Your task to perform on an android device: turn off javascript in the chrome app Image 0: 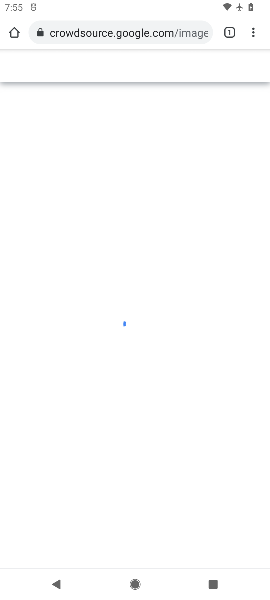
Step 0: press home button
Your task to perform on an android device: turn off javascript in the chrome app Image 1: 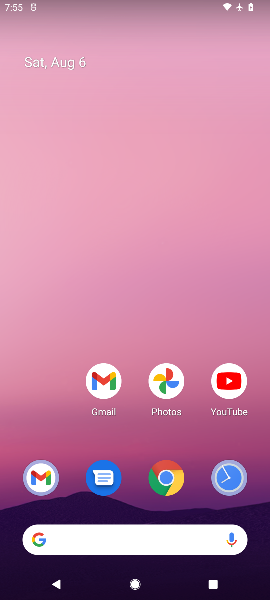
Step 1: click (169, 472)
Your task to perform on an android device: turn off javascript in the chrome app Image 2: 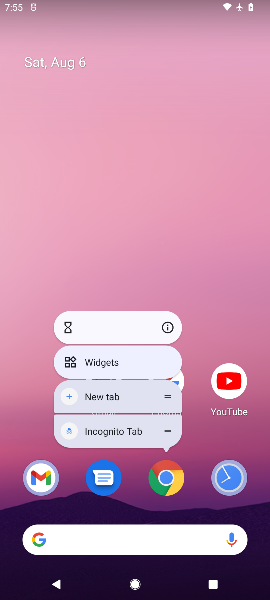
Step 2: click (164, 481)
Your task to perform on an android device: turn off javascript in the chrome app Image 3: 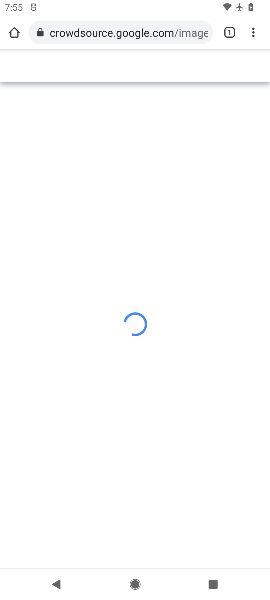
Step 3: drag from (248, 27) to (174, 429)
Your task to perform on an android device: turn off javascript in the chrome app Image 4: 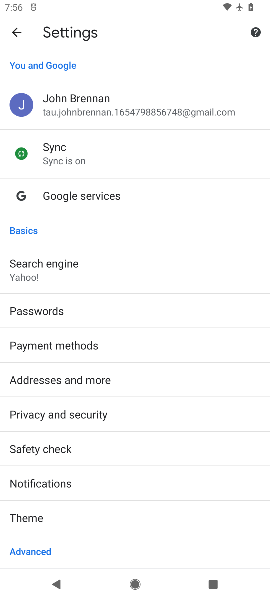
Step 4: drag from (140, 523) to (140, 201)
Your task to perform on an android device: turn off javascript in the chrome app Image 5: 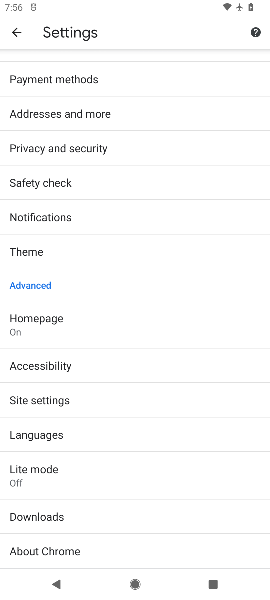
Step 5: drag from (93, 290) to (106, 54)
Your task to perform on an android device: turn off javascript in the chrome app Image 6: 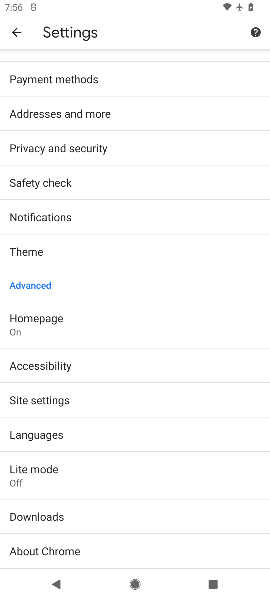
Step 6: click (69, 399)
Your task to perform on an android device: turn off javascript in the chrome app Image 7: 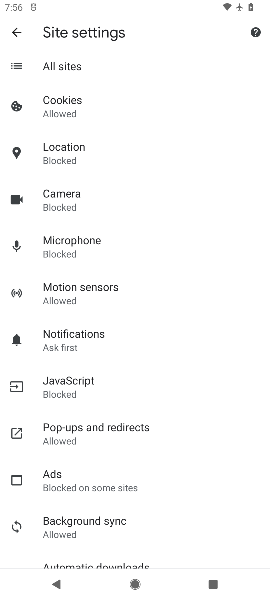
Step 7: click (73, 386)
Your task to perform on an android device: turn off javascript in the chrome app Image 8: 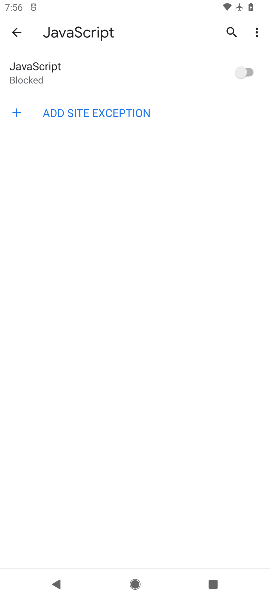
Step 8: task complete